Your task to perform on an android device: show emergency info Image 0: 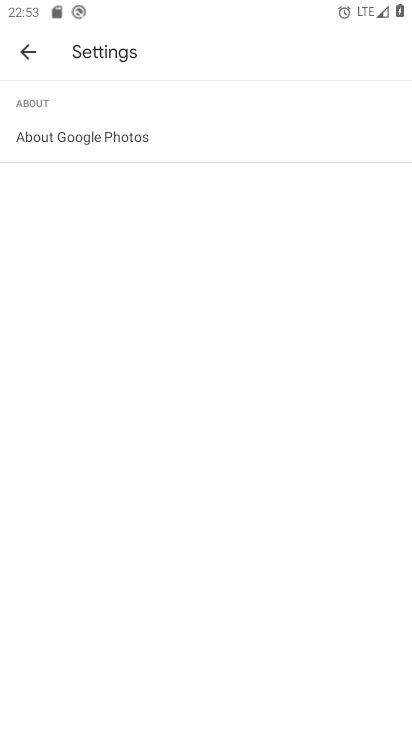
Step 0: press home button
Your task to perform on an android device: show emergency info Image 1: 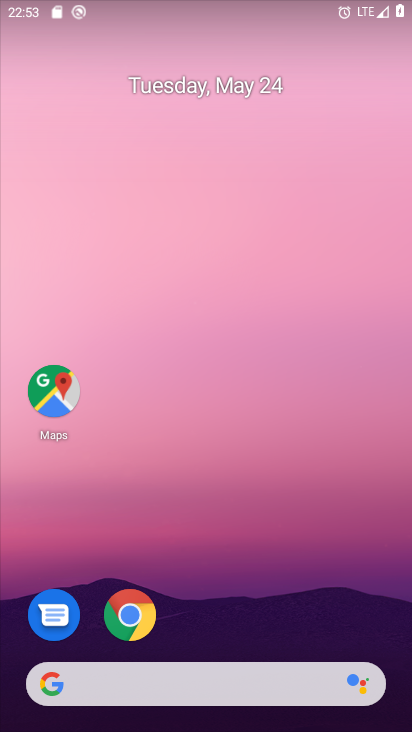
Step 1: drag from (209, 624) to (279, 194)
Your task to perform on an android device: show emergency info Image 2: 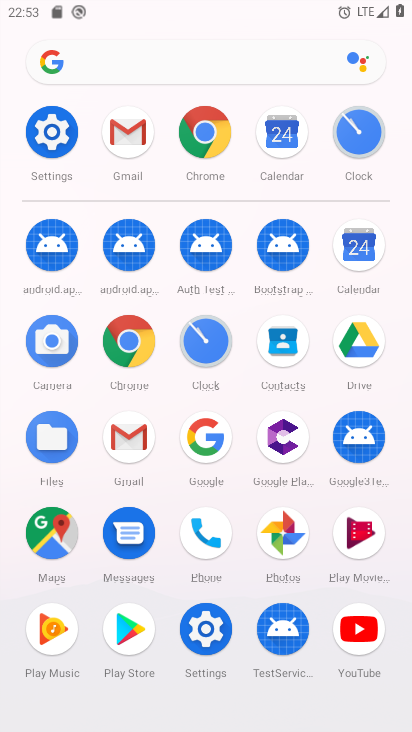
Step 2: click (55, 130)
Your task to perform on an android device: show emergency info Image 3: 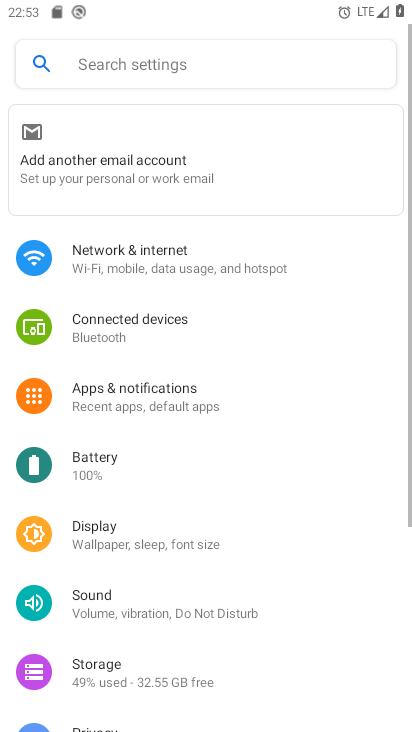
Step 3: drag from (197, 654) to (312, 116)
Your task to perform on an android device: show emergency info Image 4: 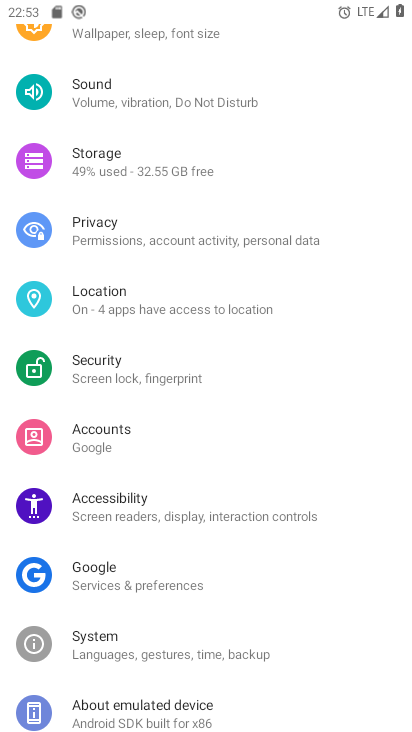
Step 4: drag from (163, 675) to (311, 123)
Your task to perform on an android device: show emergency info Image 5: 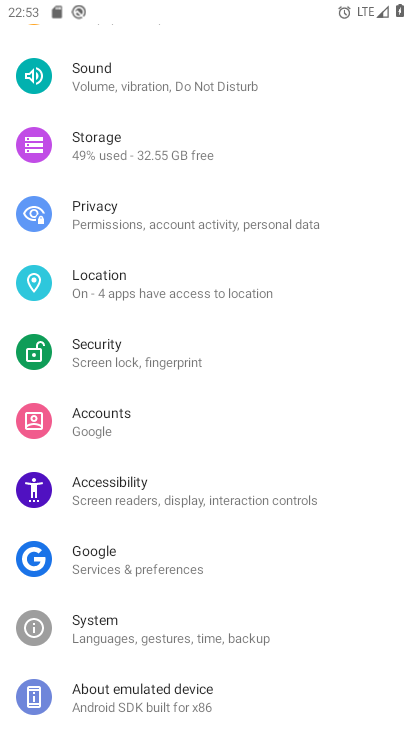
Step 5: click (162, 697)
Your task to perform on an android device: show emergency info Image 6: 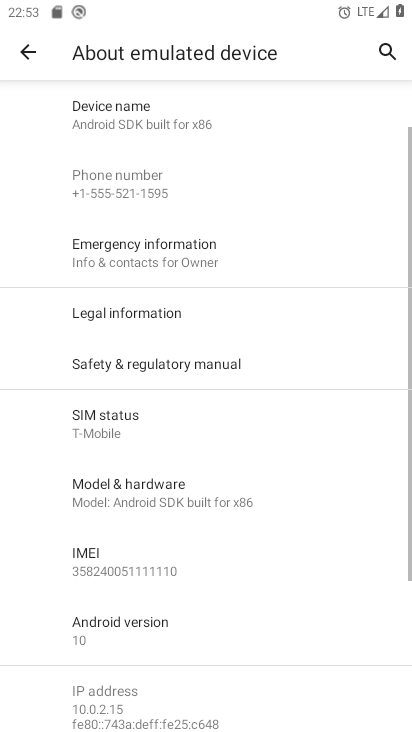
Step 6: drag from (238, 571) to (293, 205)
Your task to perform on an android device: show emergency info Image 7: 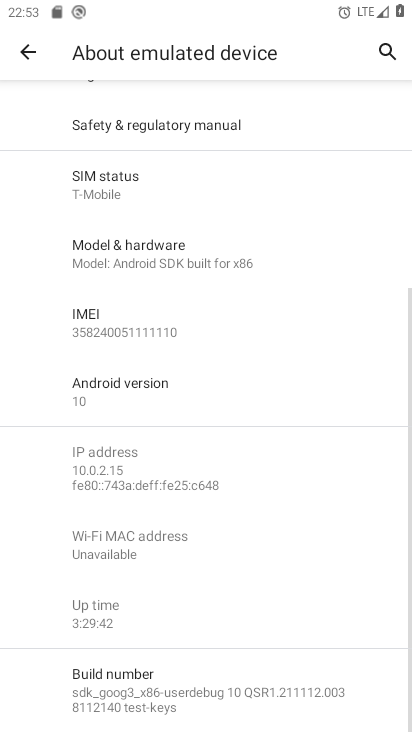
Step 7: drag from (247, 578) to (261, 262)
Your task to perform on an android device: show emergency info Image 8: 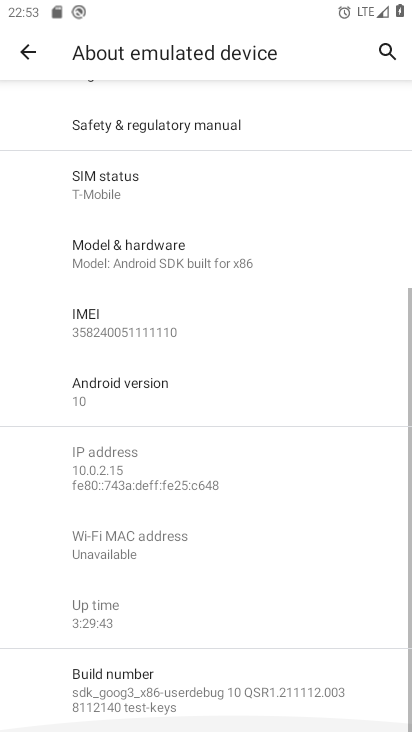
Step 8: drag from (251, 532) to (276, 192)
Your task to perform on an android device: show emergency info Image 9: 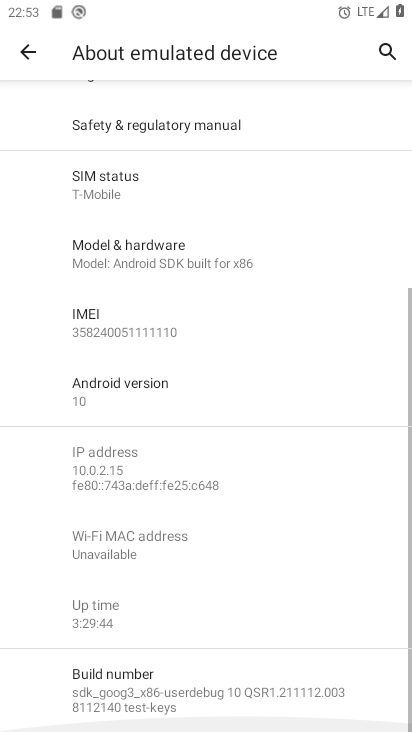
Step 9: drag from (318, 440) to (337, 238)
Your task to perform on an android device: show emergency info Image 10: 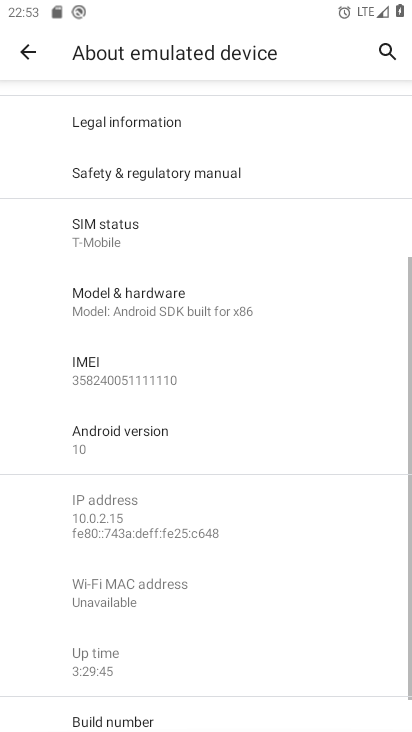
Step 10: drag from (290, 394) to (296, 223)
Your task to perform on an android device: show emergency info Image 11: 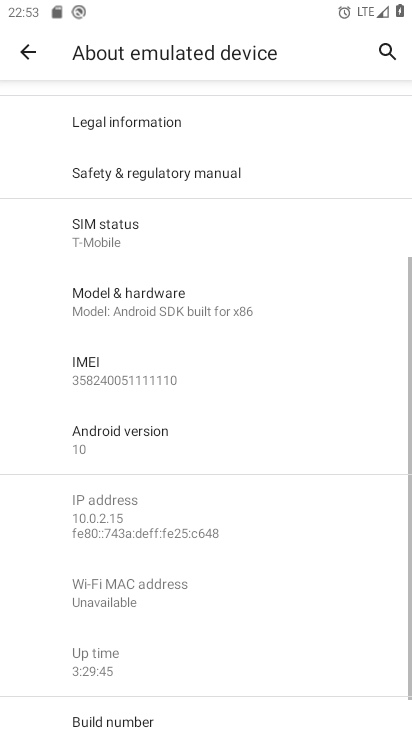
Step 11: drag from (239, 496) to (266, 241)
Your task to perform on an android device: show emergency info Image 12: 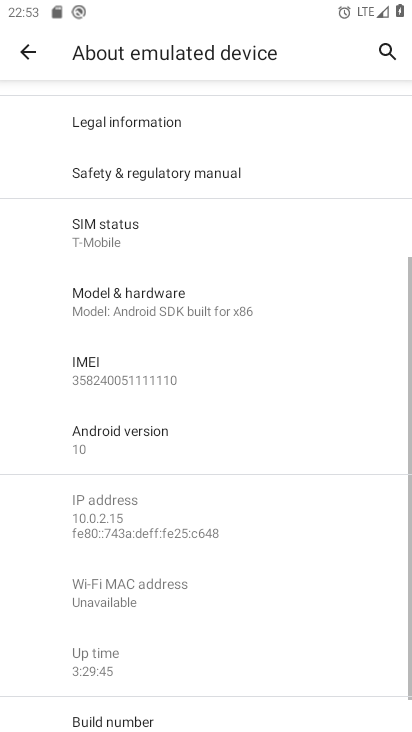
Step 12: drag from (246, 517) to (268, 295)
Your task to perform on an android device: show emergency info Image 13: 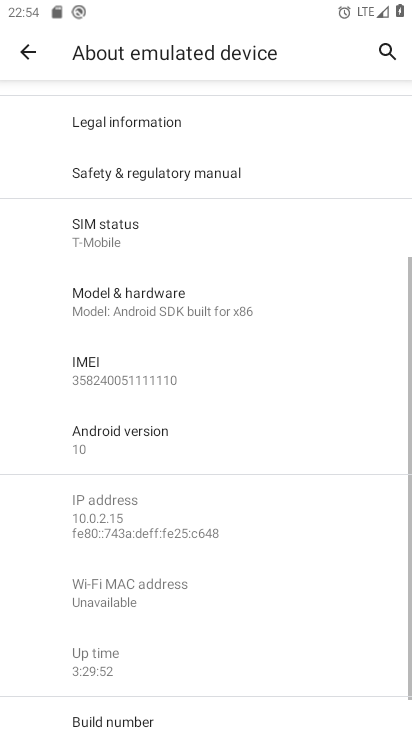
Step 13: drag from (203, 171) to (229, 600)
Your task to perform on an android device: show emergency info Image 14: 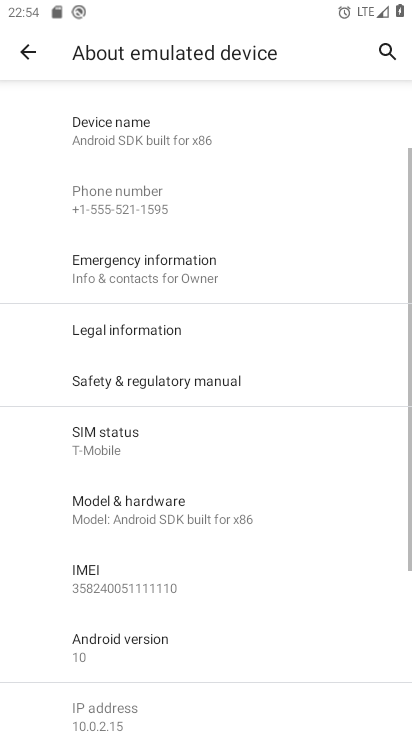
Step 14: drag from (259, 270) to (256, 529)
Your task to perform on an android device: show emergency info Image 15: 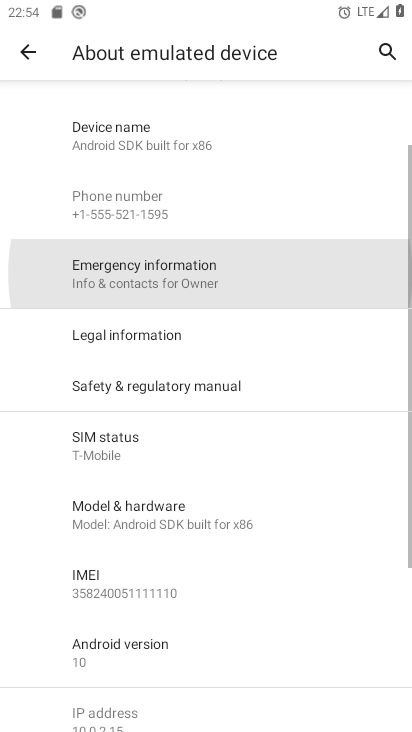
Step 15: drag from (210, 340) to (190, 507)
Your task to perform on an android device: show emergency info Image 16: 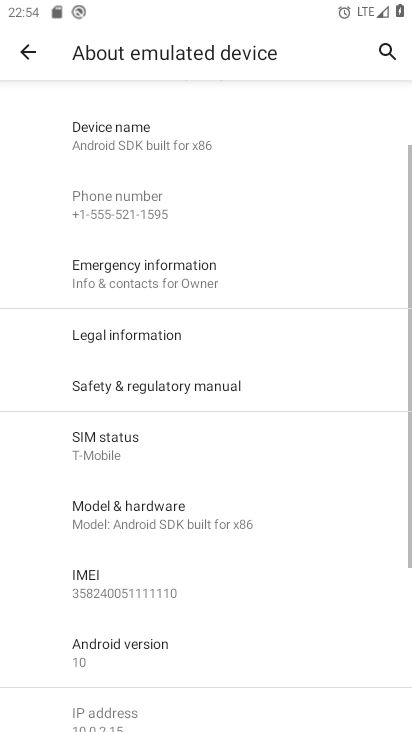
Step 16: drag from (175, 253) to (166, 509)
Your task to perform on an android device: show emergency info Image 17: 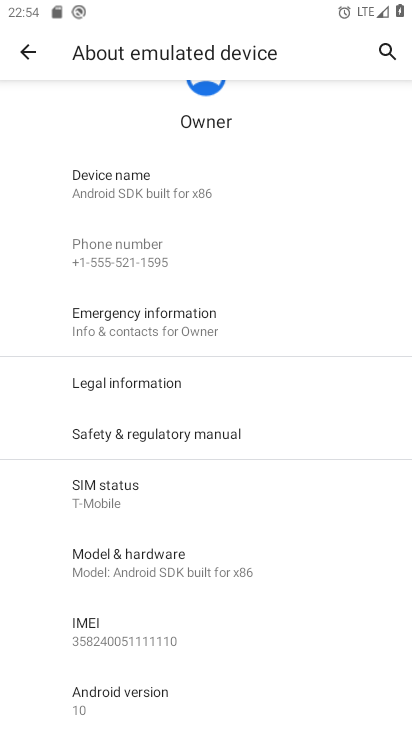
Step 17: click (173, 243)
Your task to perform on an android device: show emergency info Image 18: 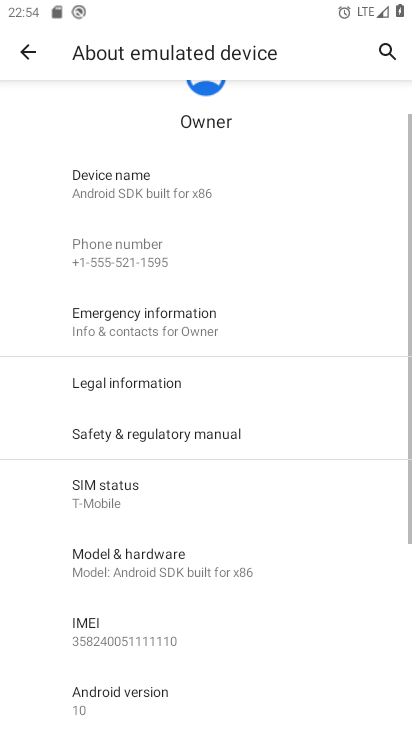
Step 18: task complete